Your task to perform on an android device: turn off notifications in google photos Image 0: 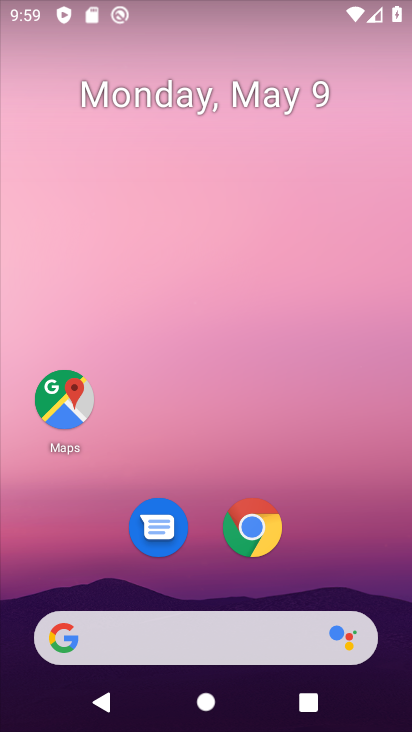
Step 0: drag from (333, 570) to (290, 2)
Your task to perform on an android device: turn off notifications in google photos Image 1: 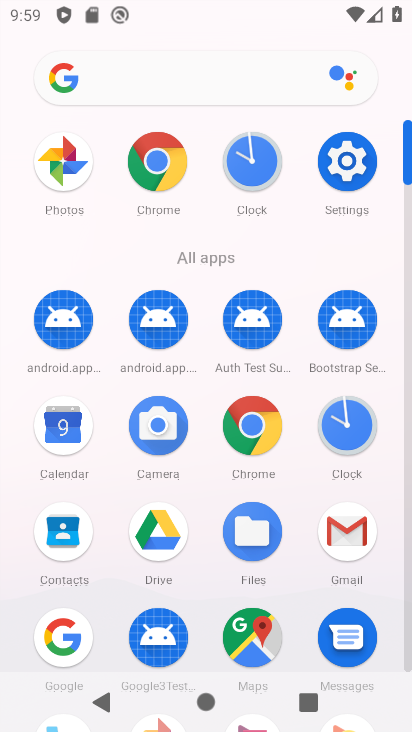
Step 1: click (62, 162)
Your task to perform on an android device: turn off notifications in google photos Image 2: 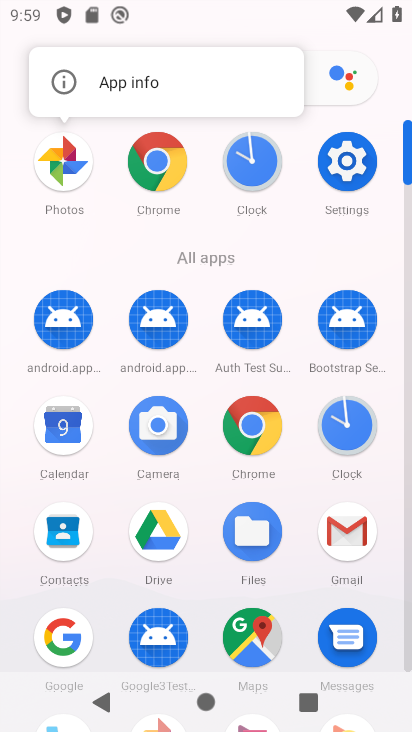
Step 2: click (62, 162)
Your task to perform on an android device: turn off notifications in google photos Image 3: 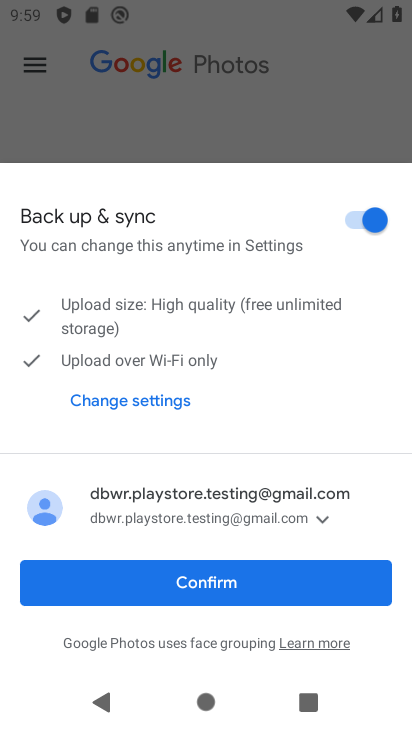
Step 3: click (175, 591)
Your task to perform on an android device: turn off notifications in google photos Image 4: 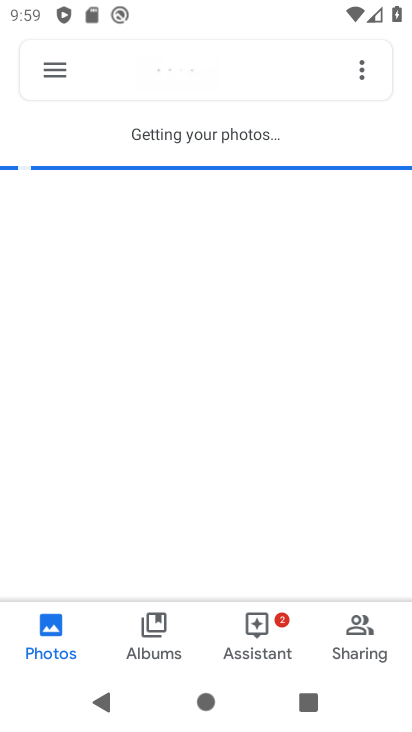
Step 4: click (55, 79)
Your task to perform on an android device: turn off notifications in google photos Image 5: 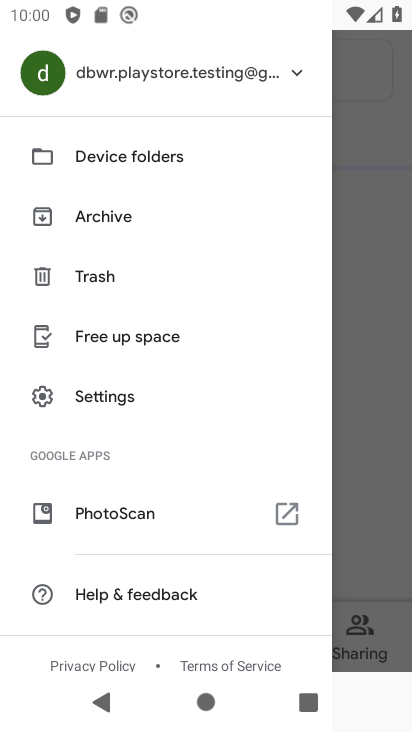
Step 5: click (103, 391)
Your task to perform on an android device: turn off notifications in google photos Image 6: 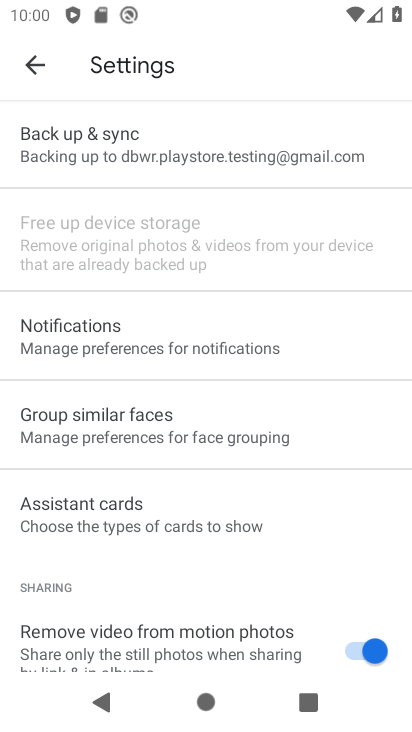
Step 6: click (110, 340)
Your task to perform on an android device: turn off notifications in google photos Image 7: 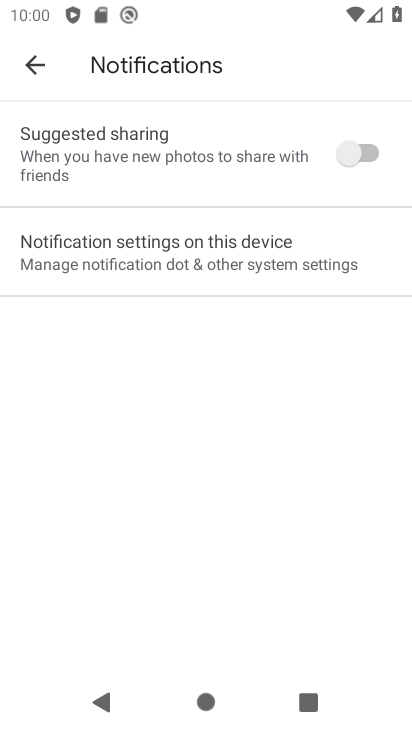
Step 7: click (127, 263)
Your task to perform on an android device: turn off notifications in google photos Image 8: 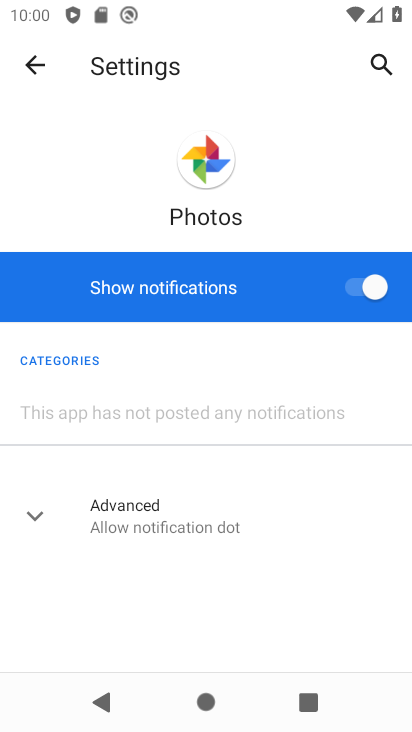
Step 8: click (377, 286)
Your task to perform on an android device: turn off notifications in google photos Image 9: 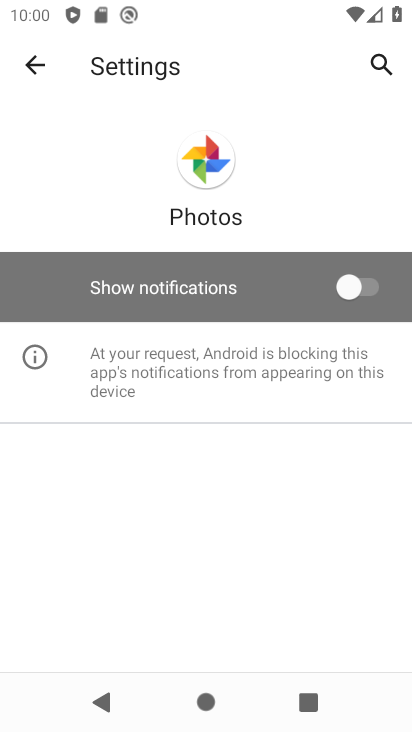
Step 9: task complete